Your task to perform on an android device: toggle notification dots Image 0: 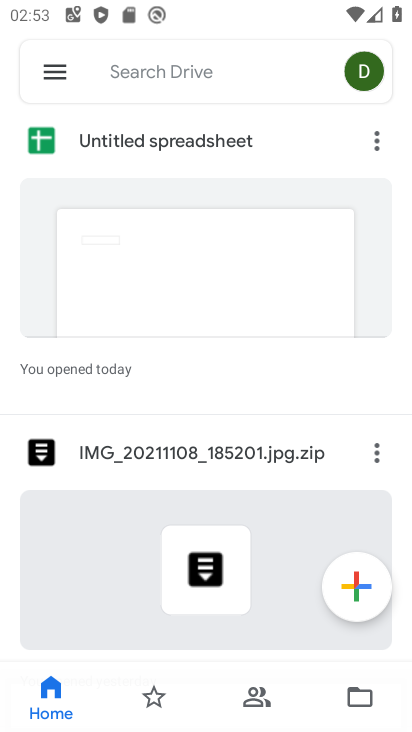
Step 0: press home button
Your task to perform on an android device: toggle notification dots Image 1: 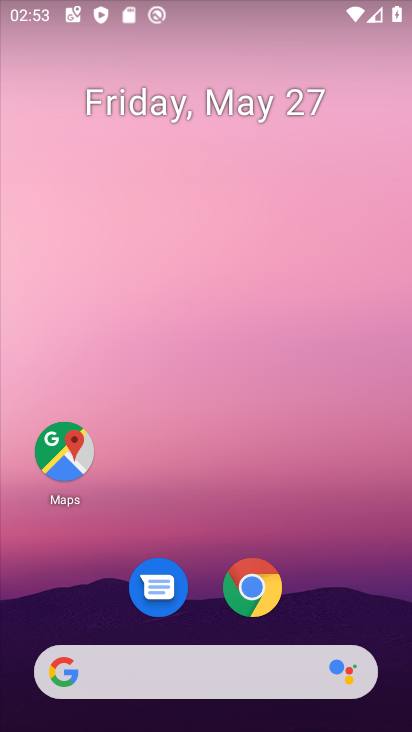
Step 1: drag from (324, 567) to (274, 163)
Your task to perform on an android device: toggle notification dots Image 2: 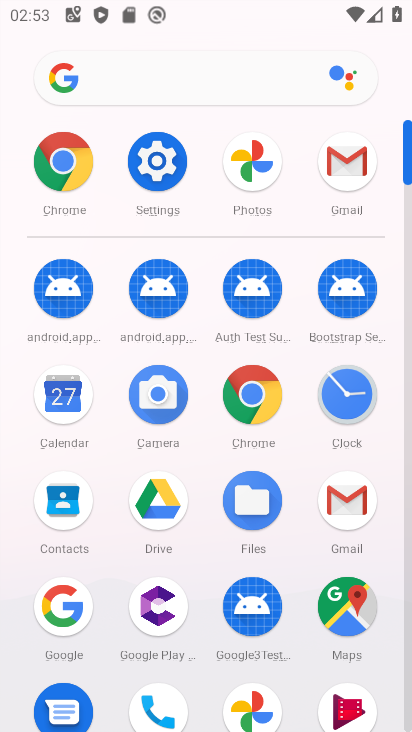
Step 2: click (156, 165)
Your task to perform on an android device: toggle notification dots Image 3: 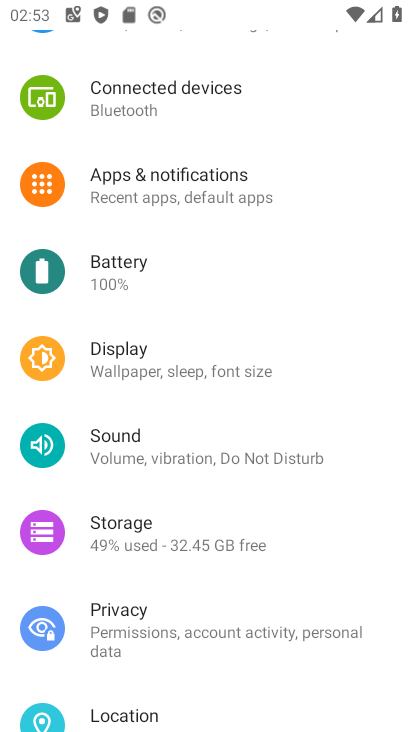
Step 3: click (174, 173)
Your task to perform on an android device: toggle notification dots Image 4: 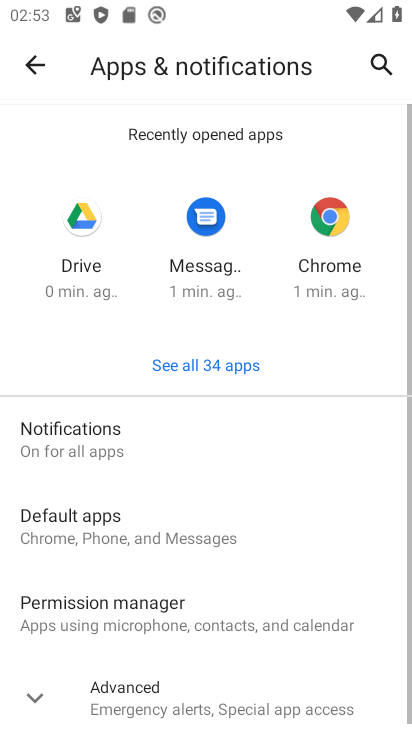
Step 4: click (71, 424)
Your task to perform on an android device: toggle notification dots Image 5: 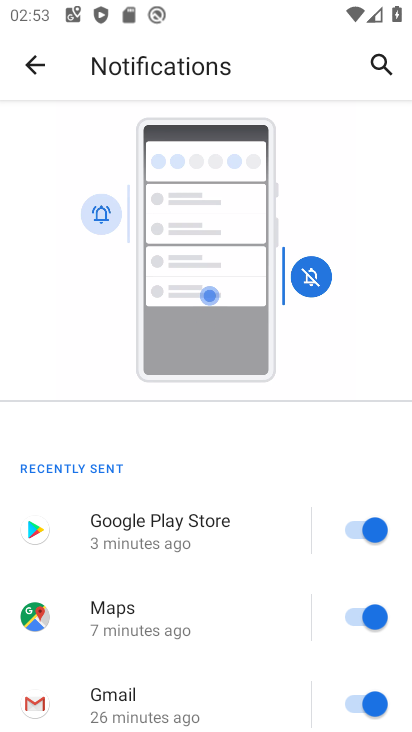
Step 5: drag from (241, 331) to (202, 69)
Your task to perform on an android device: toggle notification dots Image 6: 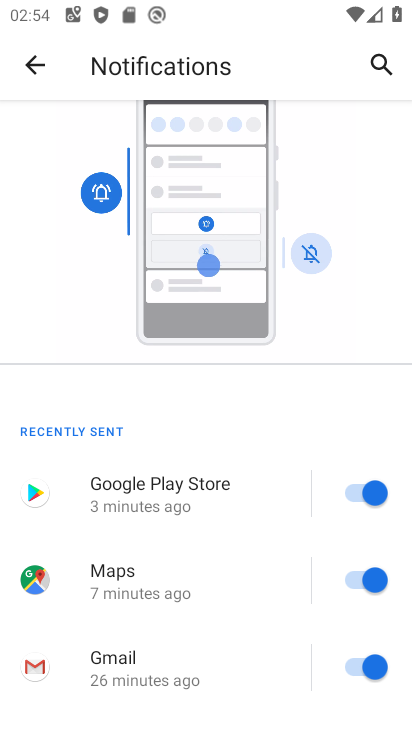
Step 6: drag from (253, 437) to (268, 207)
Your task to perform on an android device: toggle notification dots Image 7: 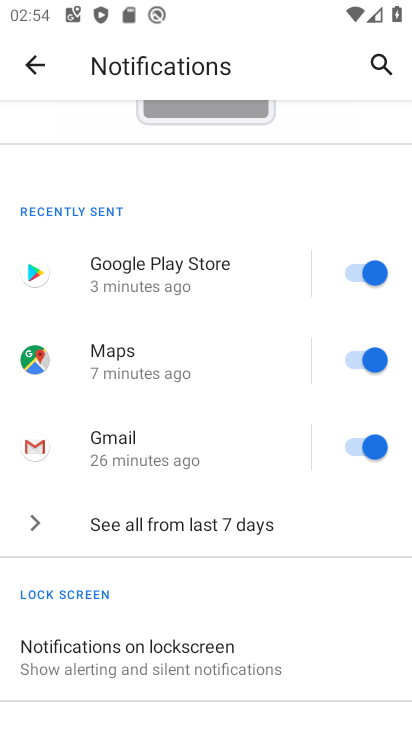
Step 7: drag from (274, 600) to (281, 301)
Your task to perform on an android device: toggle notification dots Image 8: 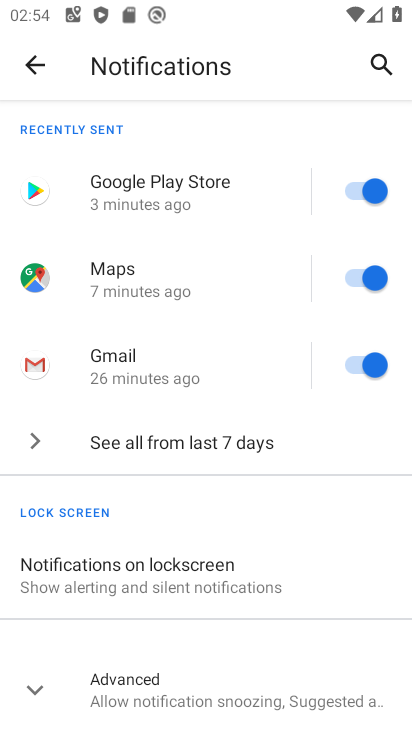
Step 8: click (117, 691)
Your task to perform on an android device: toggle notification dots Image 9: 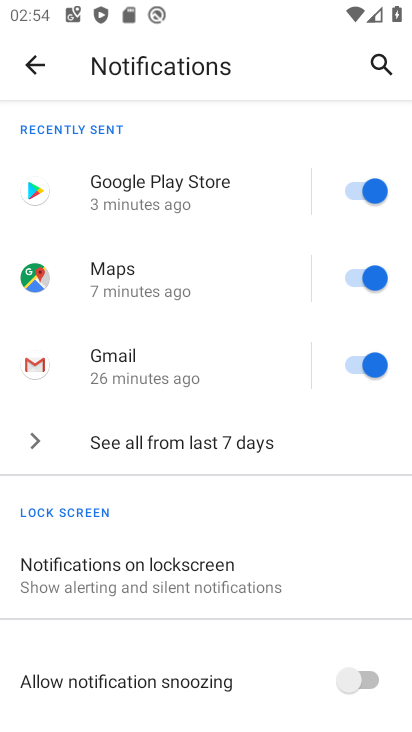
Step 9: drag from (253, 645) to (271, 306)
Your task to perform on an android device: toggle notification dots Image 10: 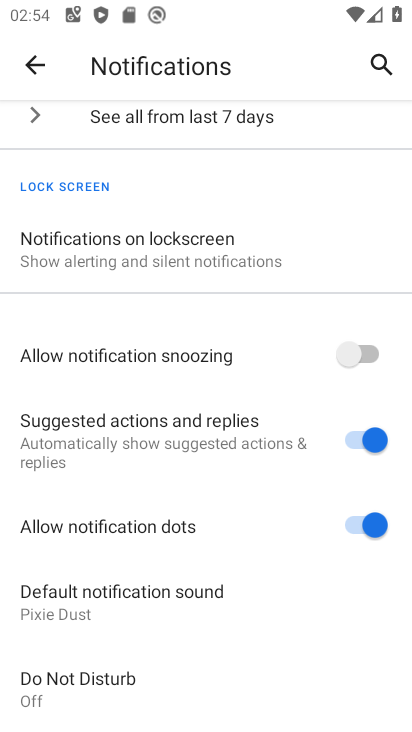
Step 10: click (374, 530)
Your task to perform on an android device: toggle notification dots Image 11: 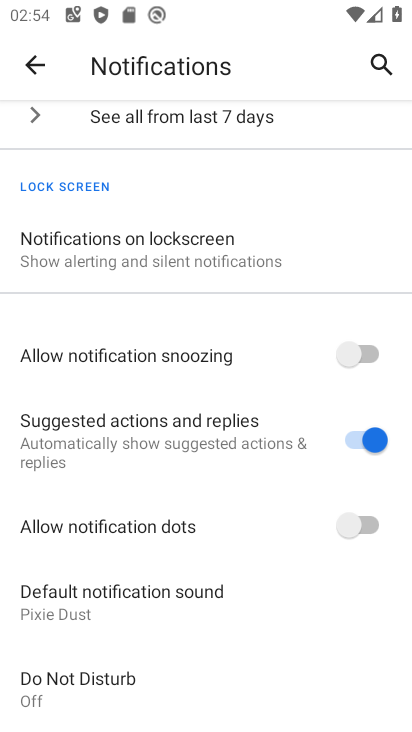
Step 11: task complete